Your task to perform on an android device: uninstall "Google Calendar" Image 0: 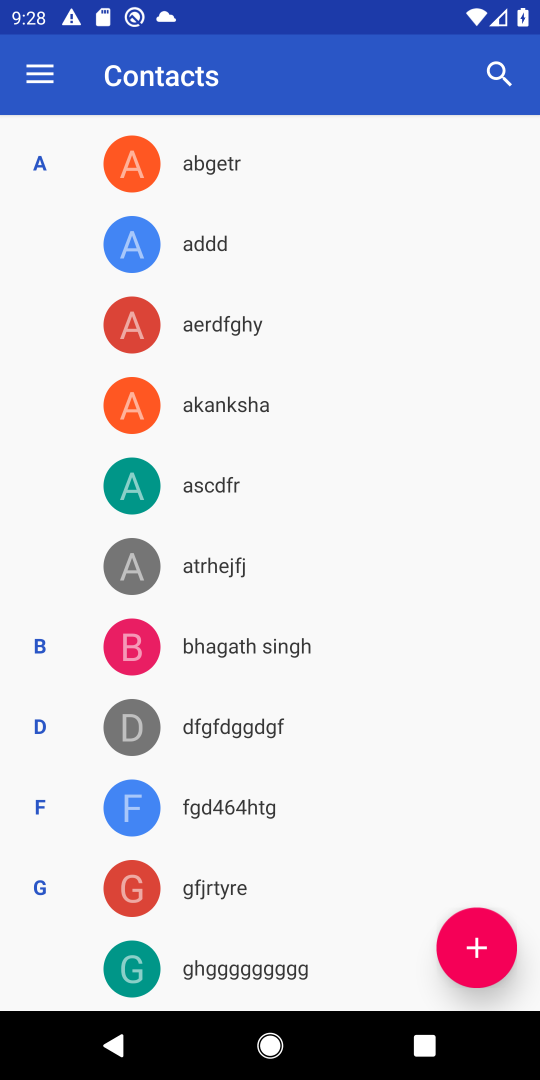
Step 0: press home button
Your task to perform on an android device: uninstall "Google Calendar" Image 1: 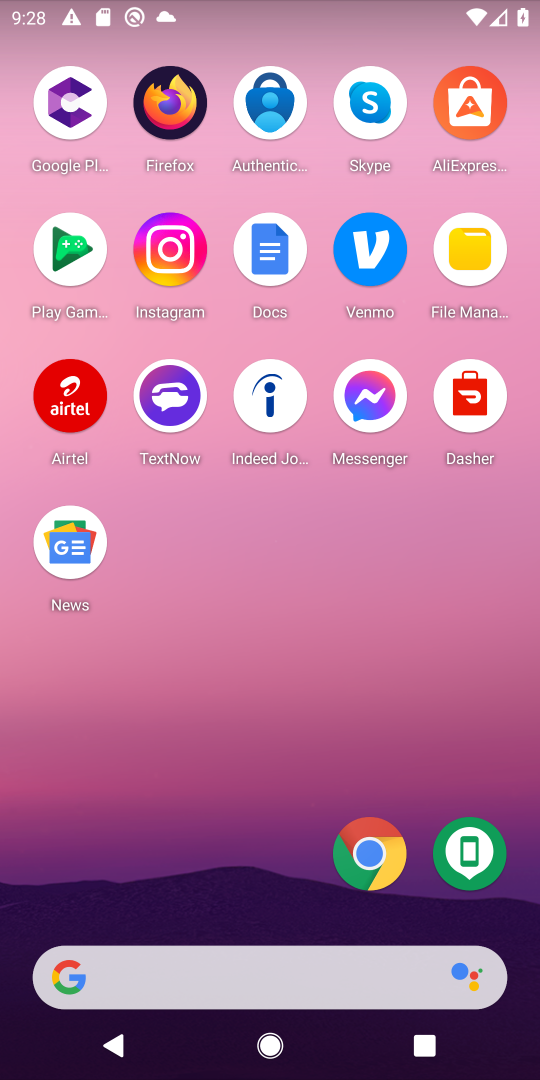
Step 1: click (182, 895)
Your task to perform on an android device: uninstall "Google Calendar" Image 2: 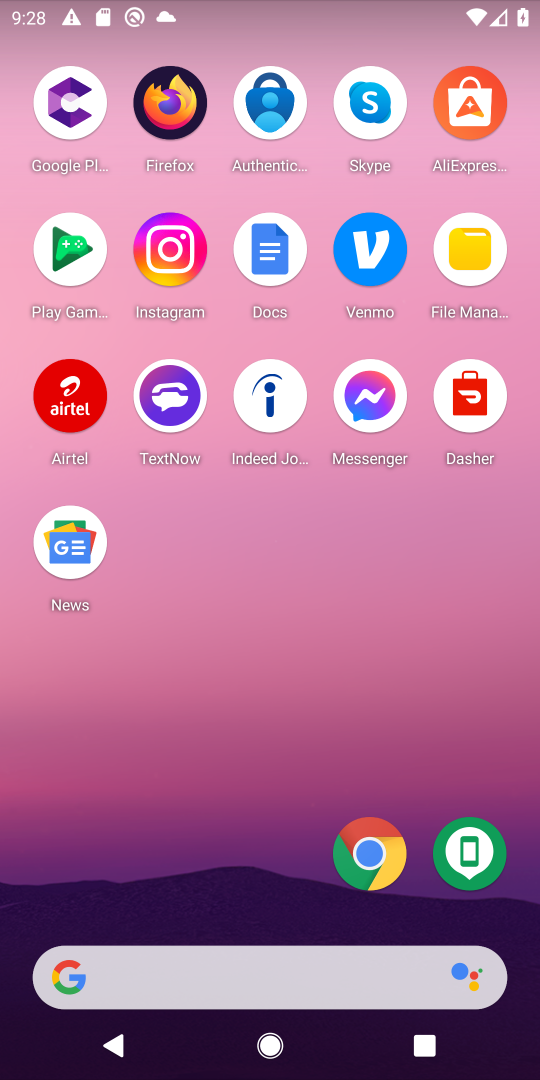
Step 2: drag from (256, 421) to (236, 39)
Your task to perform on an android device: uninstall "Google Calendar" Image 3: 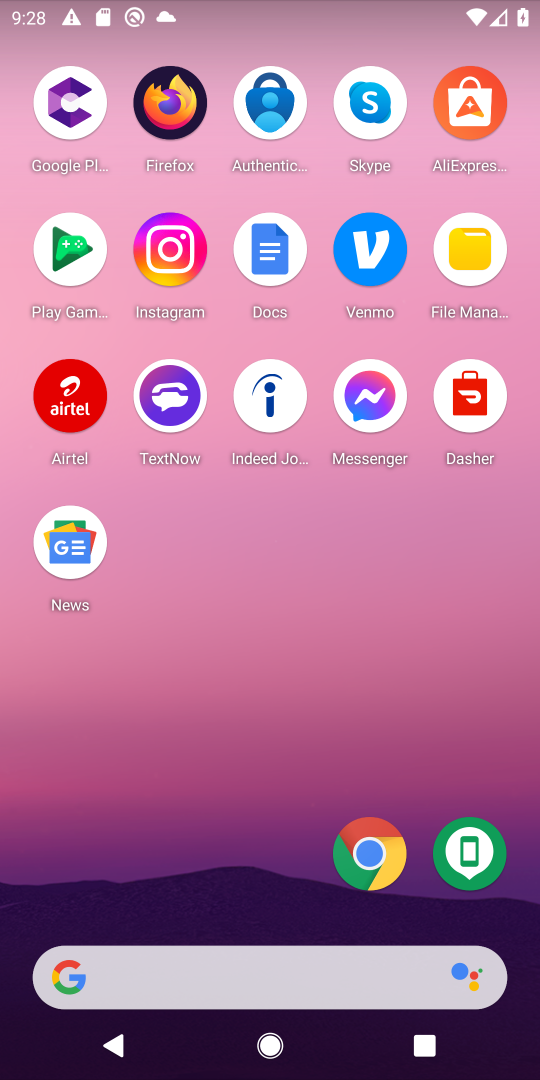
Step 3: drag from (284, 689) to (255, 0)
Your task to perform on an android device: uninstall "Google Calendar" Image 4: 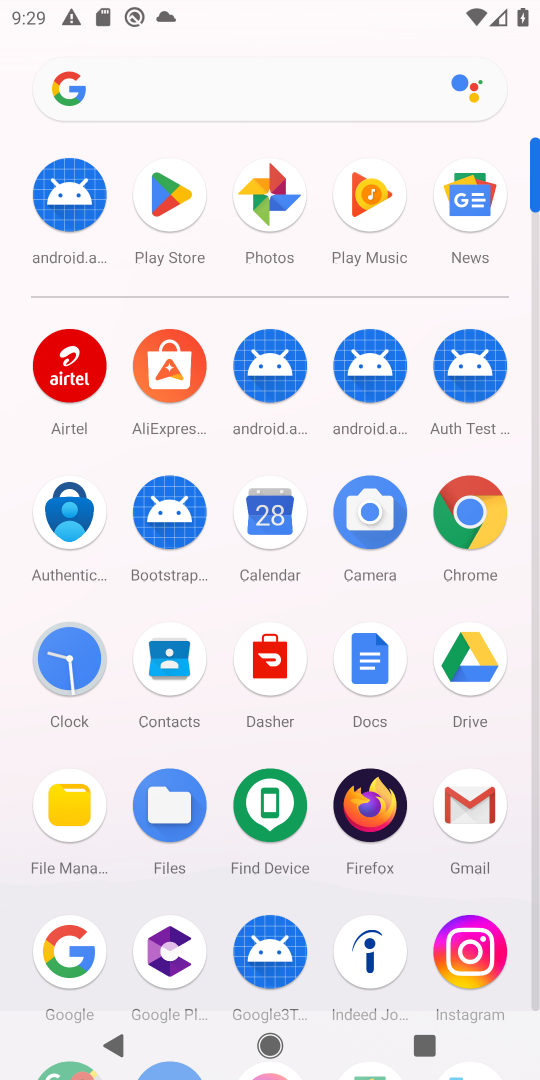
Step 4: click (173, 189)
Your task to perform on an android device: uninstall "Google Calendar" Image 5: 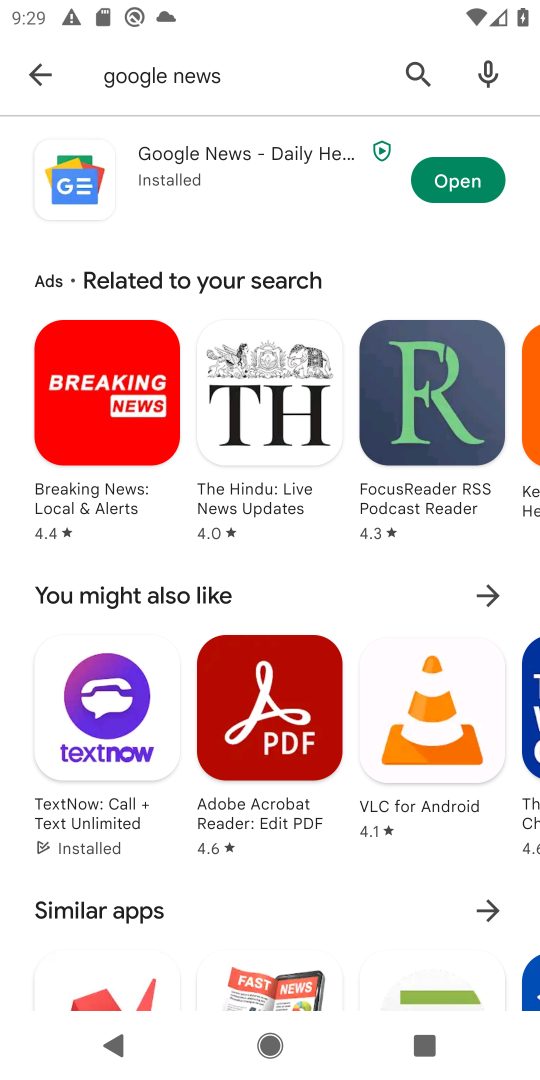
Step 5: click (34, 69)
Your task to perform on an android device: uninstall "Google Calendar" Image 6: 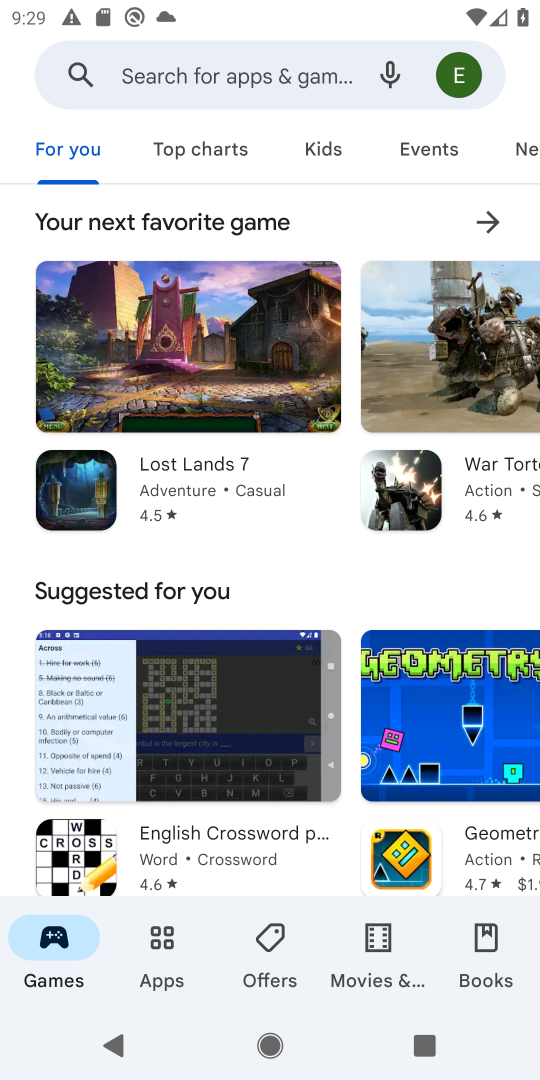
Step 6: click (207, 72)
Your task to perform on an android device: uninstall "Google Calendar" Image 7: 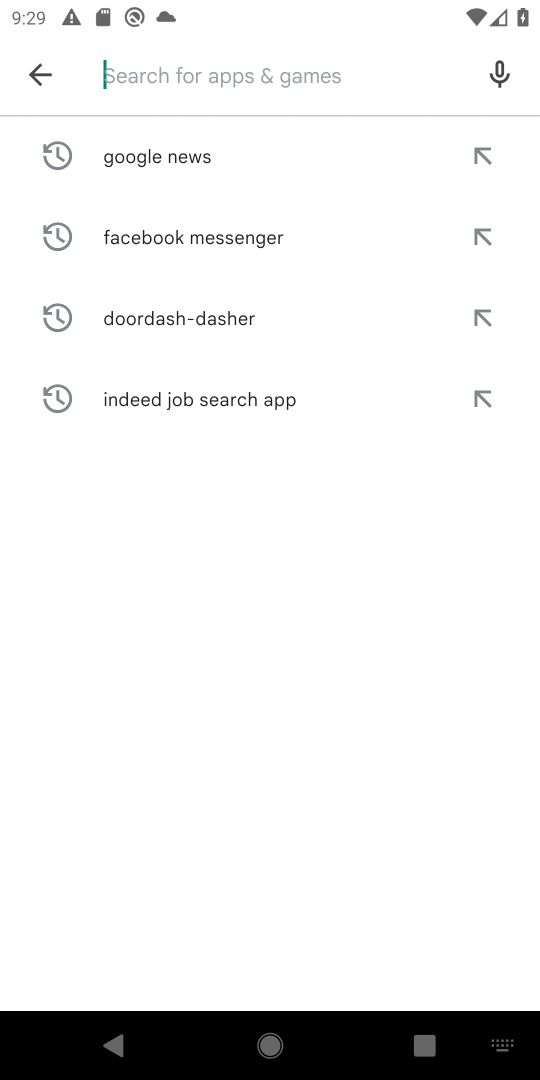
Step 7: type "Google Calendar"
Your task to perform on an android device: uninstall "Google Calendar" Image 8: 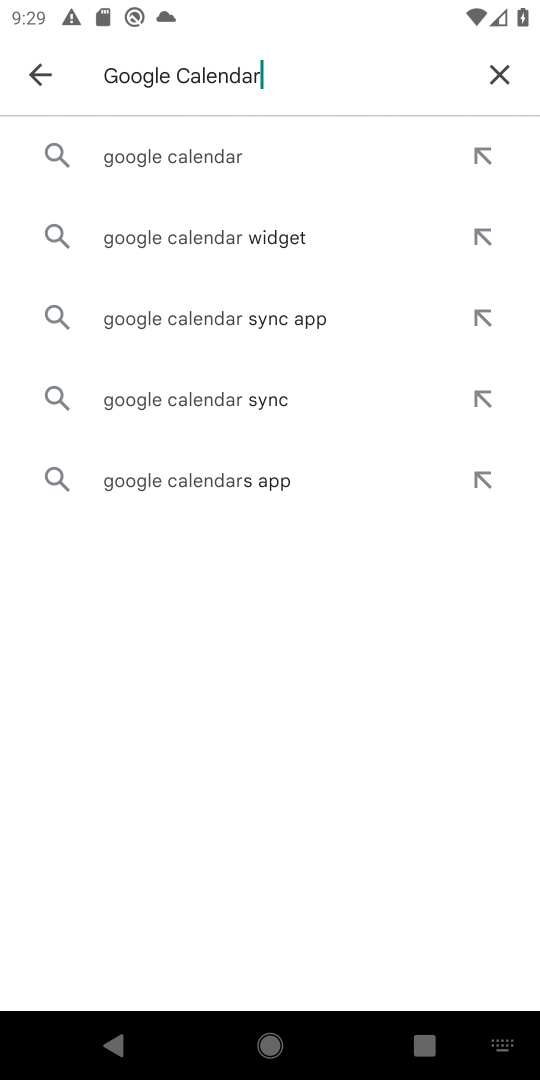
Step 8: click (187, 152)
Your task to perform on an android device: uninstall "Google Calendar" Image 9: 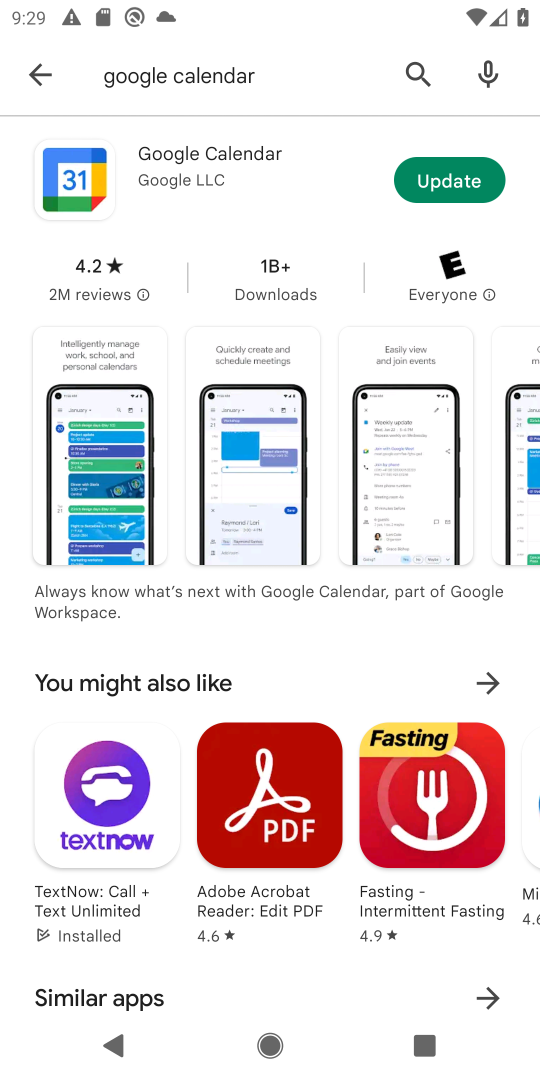
Step 9: click (77, 178)
Your task to perform on an android device: uninstall "Google Calendar" Image 10: 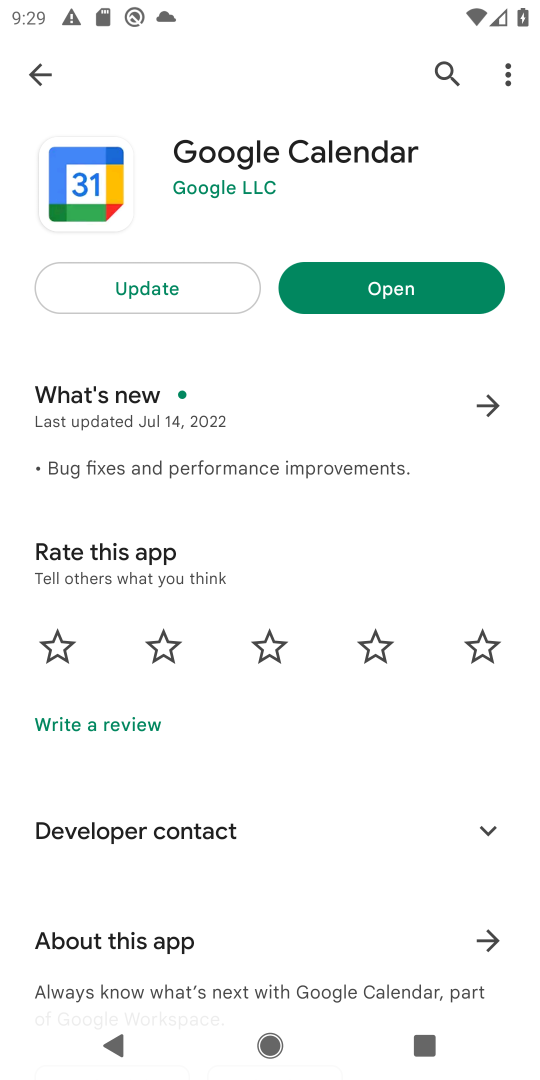
Step 10: click (503, 68)
Your task to perform on an android device: uninstall "Google Calendar" Image 11: 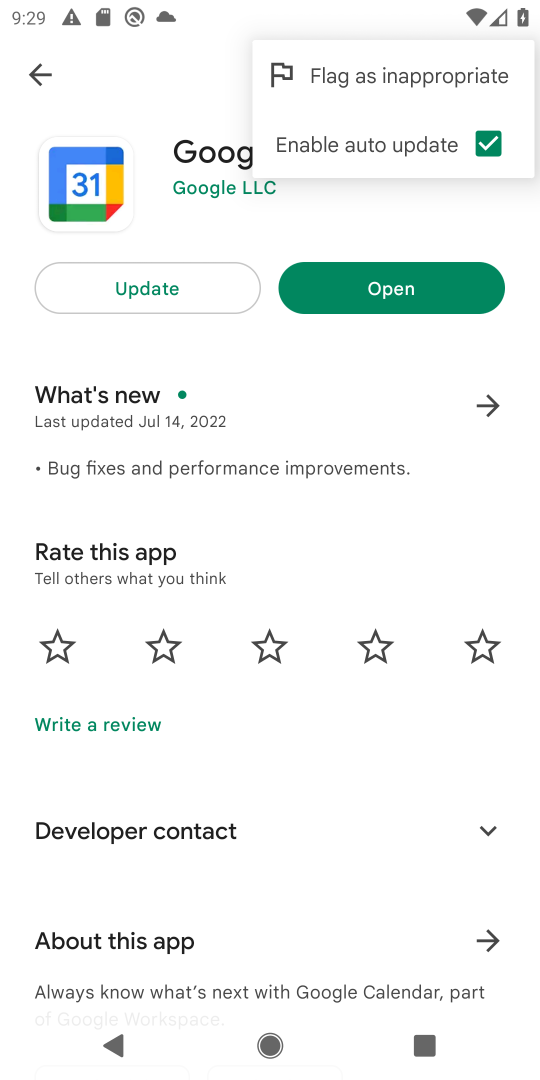
Step 11: click (364, 195)
Your task to perform on an android device: uninstall "Google Calendar" Image 12: 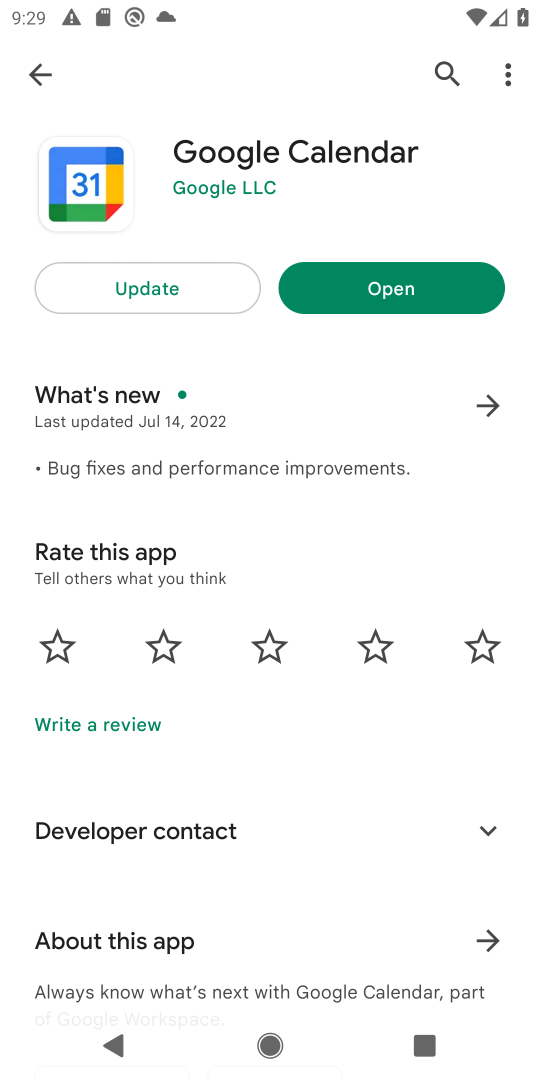
Step 12: click (146, 279)
Your task to perform on an android device: uninstall "Google Calendar" Image 13: 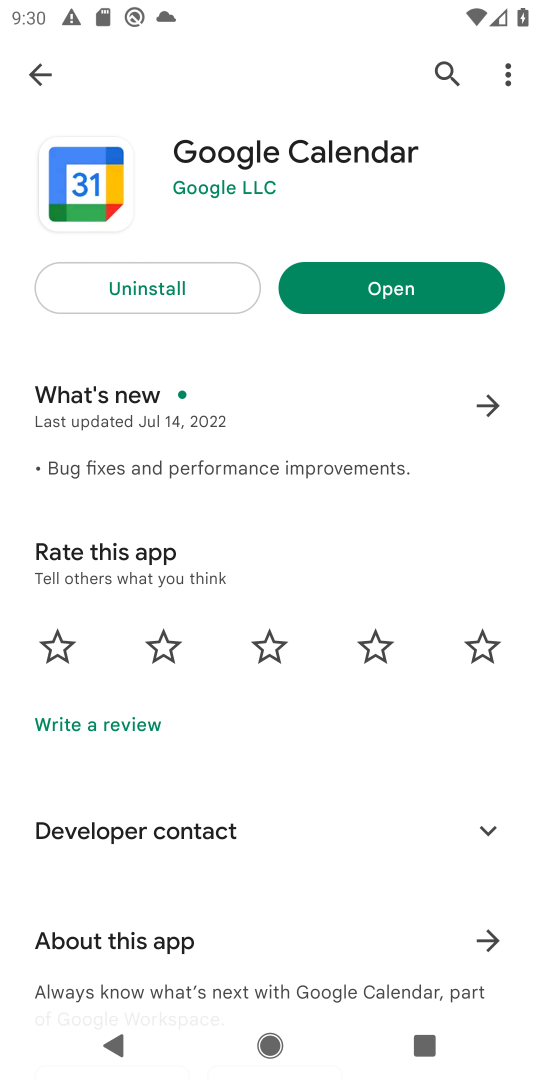
Step 13: click (130, 273)
Your task to perform on an android device: uninstall "Google Calendar" Image 14: 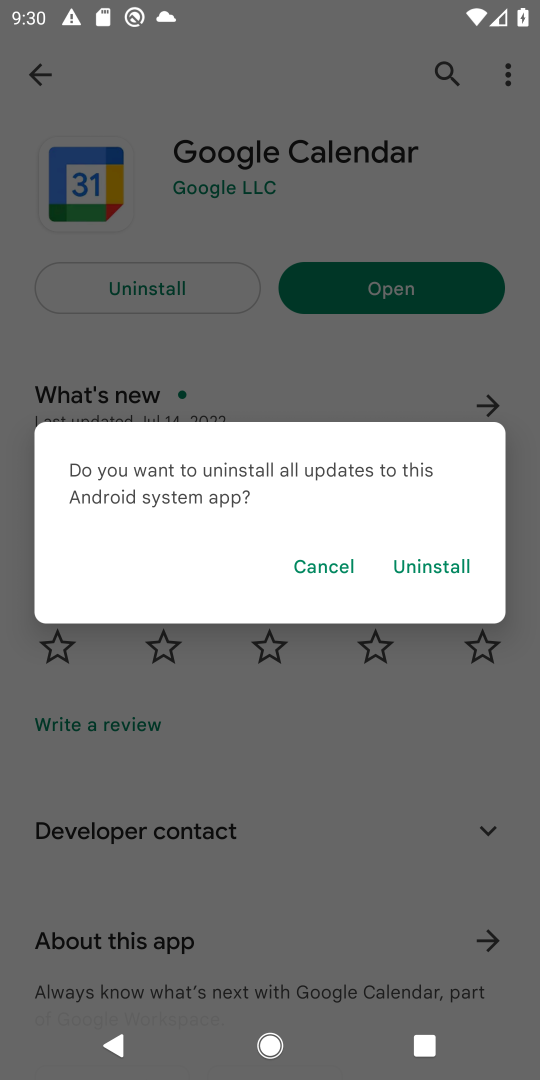
Step 14: click (430, 568)
Your task to perform on an android device: uninstall "Google Calendar" Image 15: 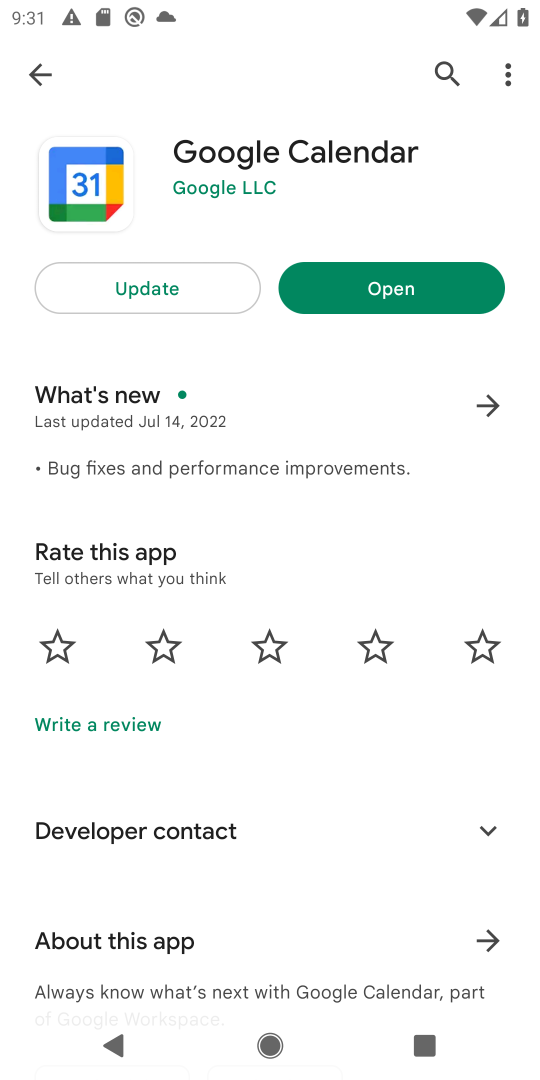
Step 15: task complete